Your task to perform on an android device: Is it going to rain tomorrow? Image 0: 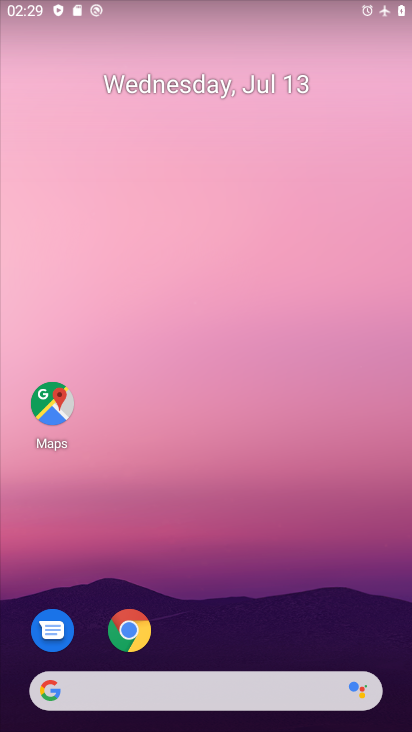
Step 0: drag from (228, 638) to (191, 194)
Your task to perform on an android device: Is it going to rain tomorrow? Image 1: 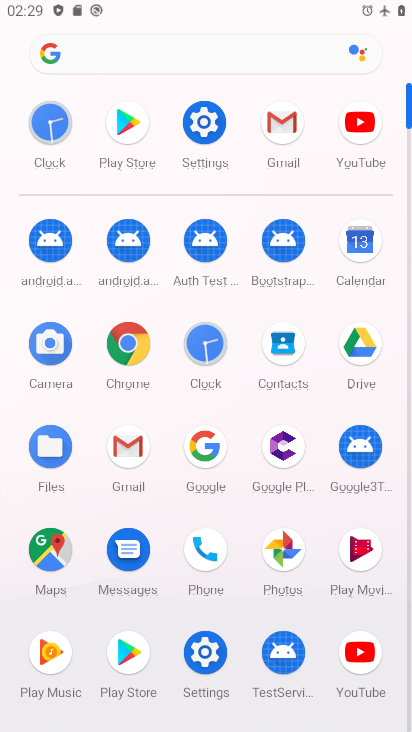
Step 1: click (210, 455)
Your task to perform on an android device: Is it going to rain tomorrow? Image 2: 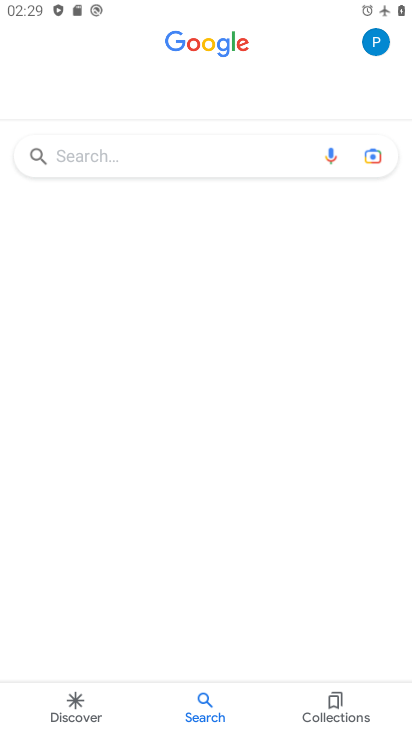
Step 2: click (212, 150)
Your task to perform on an android device: Is it going to rain tomorrow? Image 3: 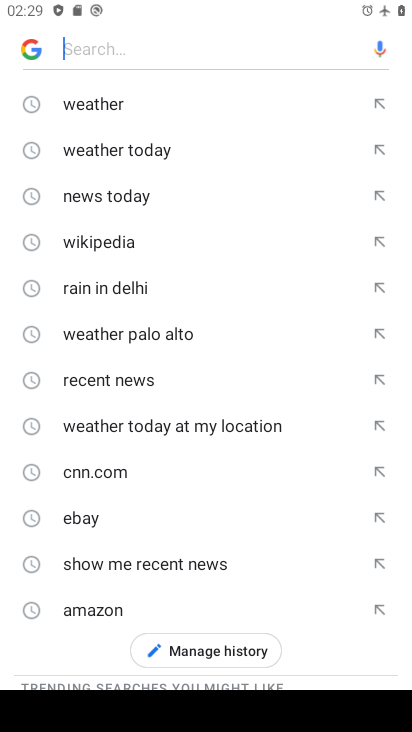
Step 3: click (127, 103)
Your task to perform on an android device: Is it going to rain tomorrow? Image 4: 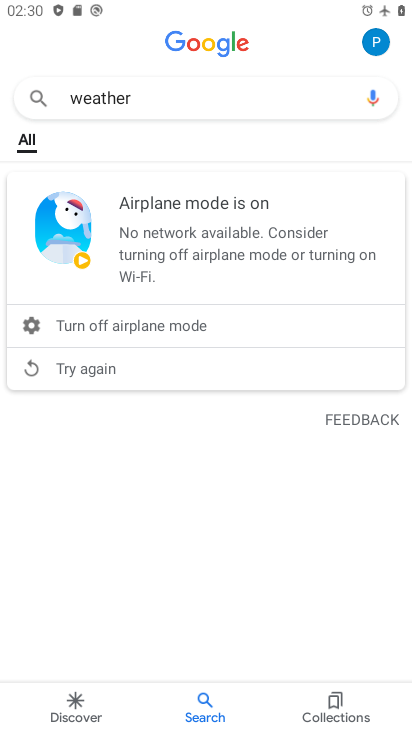
Step 4: task complete